Your task to perform on an android device: Search for razer huntsman on amazon, select the first entry, add it to the cart, then select checkout. Image 0: 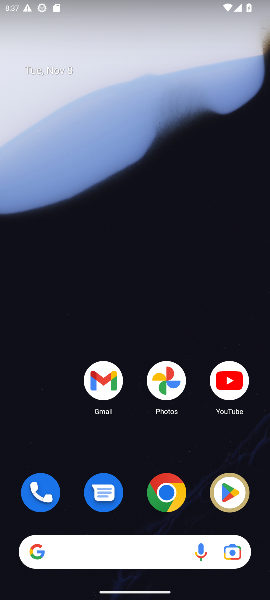
Step 0: click (175, 494)
Your task to perform on an android device: Search for razer huntsman on amazon, select the first entry, add it to the cart, then select checkout. Image 1: 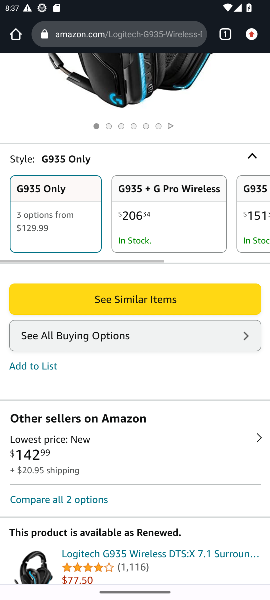
Step 1: drag from (149, 131) to (231, 558)
Your task to perform on an android device: Search for razer huntsman on amazon, select the first entry, add it to the cart, then select checkout. Image 2: 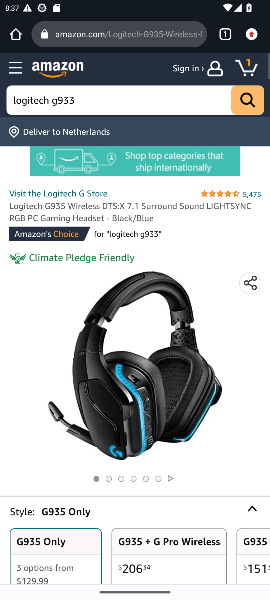
Step 2: click (139, 102)
Your task to perform on an android device: Search for razer huntsman on amazon, select the first entry, add it to the cart, then select checkout. Image 3: 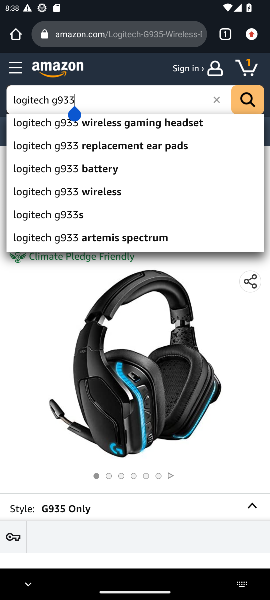
Step 3: click (216, 97)
Your task to perform on an android device: Search for razer huntsman on amazon, select the first entry, add it to the cart, then select checkout. Image 4: 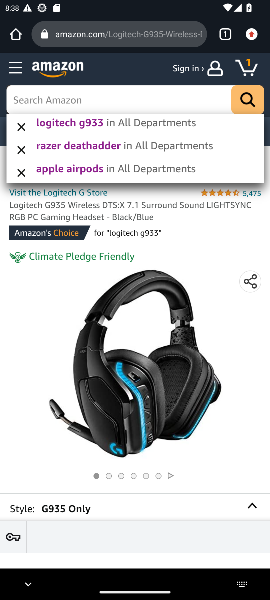
Step 4: type "razer huntsman"
Your task to perform on an android device: Search for razer huntsman on amazon, select the first entry, add it to the cart, then select checkout. Image 5: 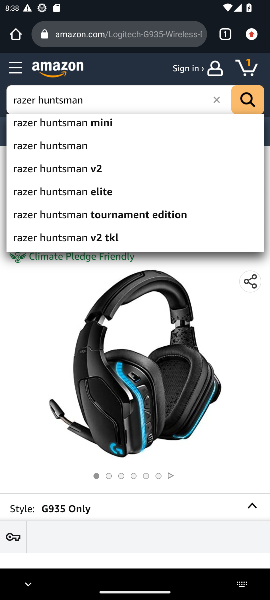
Step 5: click (54, 141)
Your task to perform on an android device: Search for razer huntsman on amazon, select the first entry, add it to the cart, then select checkout. Image 6: 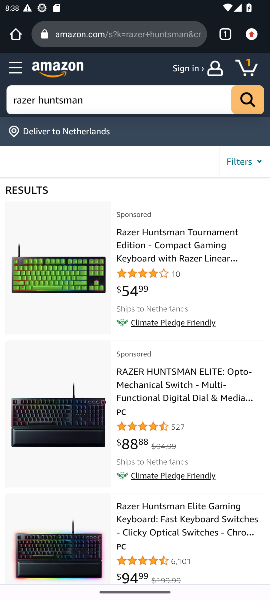
Step 6: click (55, 279)
Your task to perform on an android device: Search for razer huntsman on amazon, select the first entry, add it to the cart, then select checkout. Image 7: 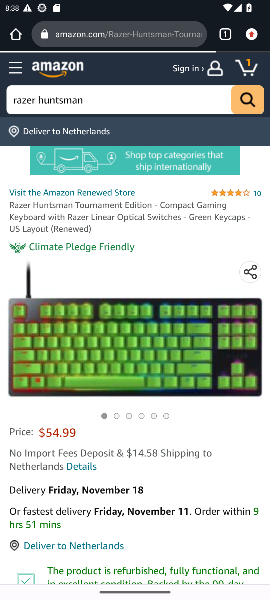
Step 7: drag from (210, 405) to (194, 167)
Your task to perform on an android device: Search for razer huntsman on amazon, select the first entry, add it to the cart, then select checkout. Image 8: 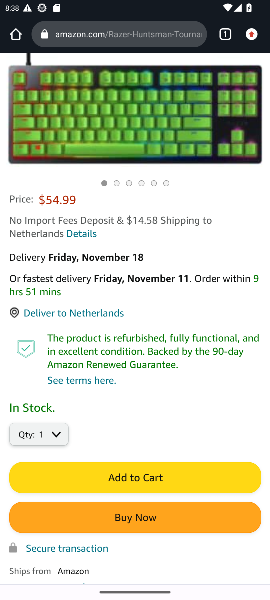
Step 8: click (179, 479)
Your task to perform on an android device: Search for razer huntsman on amazon, select the first entry, add it to the cart, then select checkout. Image 9: 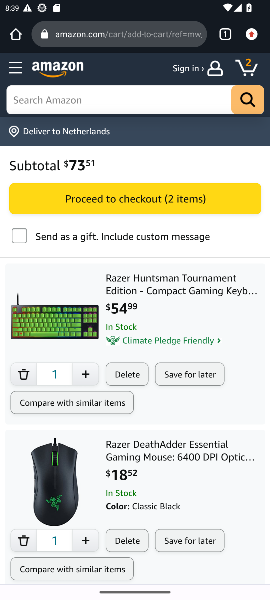
Step 9: click (114, 195)
Your task to perform on an android device: Search for razer huntsman on amazon, select the first entry, add it to the cart, then select checkout. Image 10: 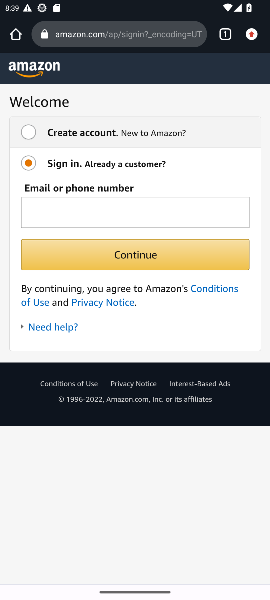
Step 10: task complete